Your task to perform on an android device: Go to wifi settings Image 0: 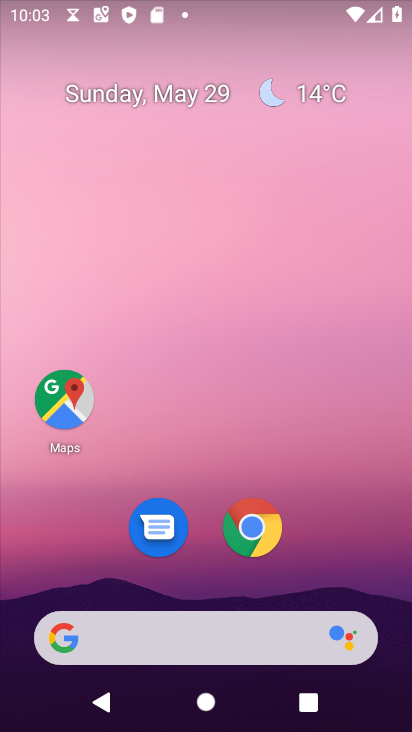
Step 0: press home button
Your task to perform on an android device: Go to wifi settings Image 1: 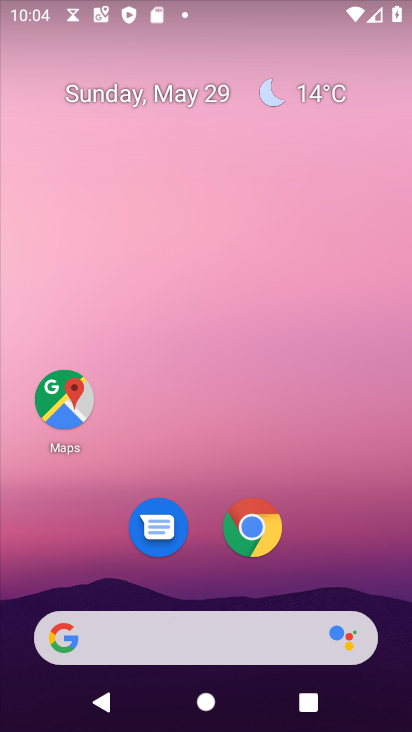
Step 1: drag from (146, 635) to (246, 195)
Your task to perform on an android device: Go to wifi settings Image 2: 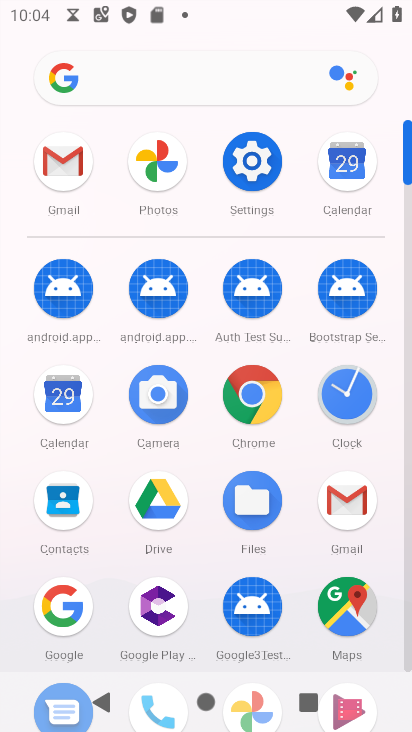
Step 2: click (257, 180)
Your task to perform on an android device: Go to wifi settings Image 3: 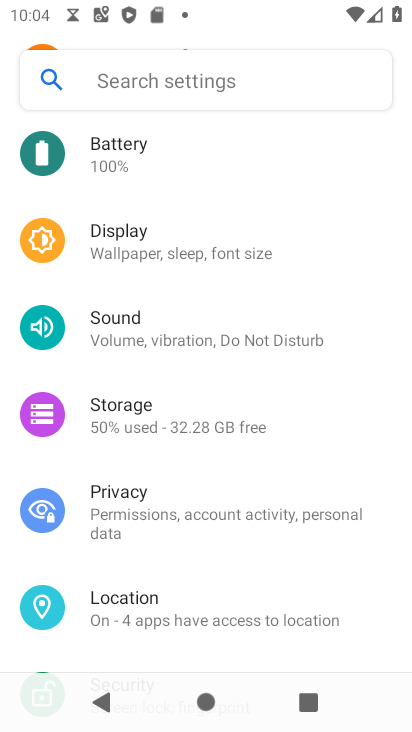
Step 3: drag from (288, 177) to (205, 578)
Your task to perform on an android device: Go to wifi settings Image 4: 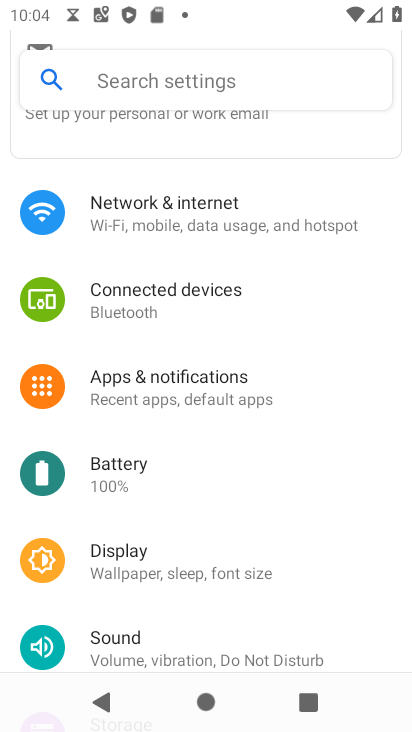
Step 4: click (201, 205)
Your task to perform on an android device: Go to wifi settings Image 5: 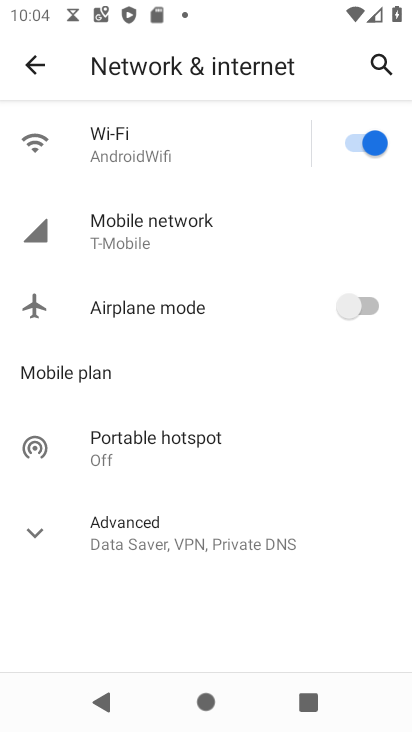
Step 5: click (100, 145)
Your task to perform on an android device: Go to wifi settings Image 6: 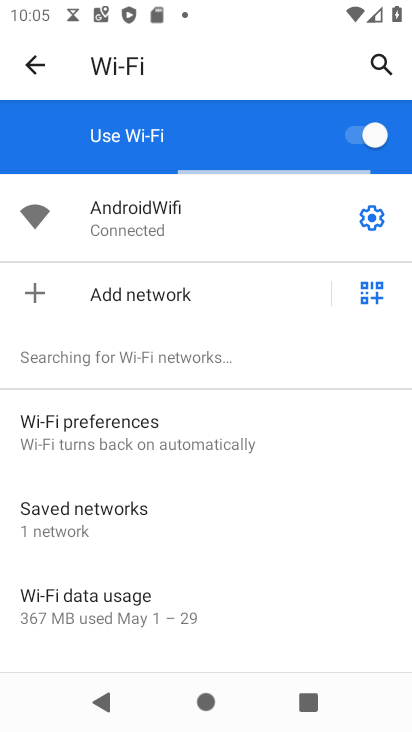
Step 6: task complete